Your task to perform on an android device: delete the emails in spam in the gmail app Image 0: 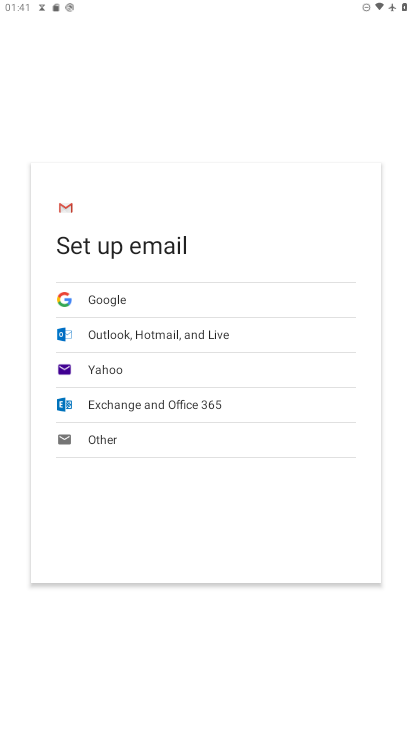
Step 0: press home button
Your task to perform on an android device: delete the emails in spam in the gmail app Image 1: 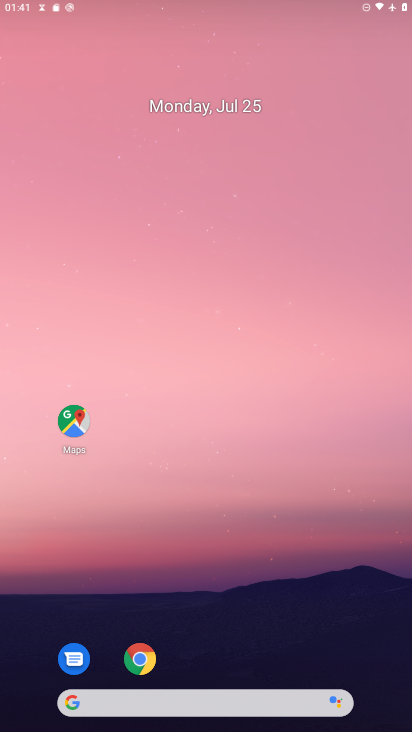
Step 1: drag from (218, 658) to (194, 322)
Your task to perform on an android device: delete the emails in spam in the gmail app Image 2: 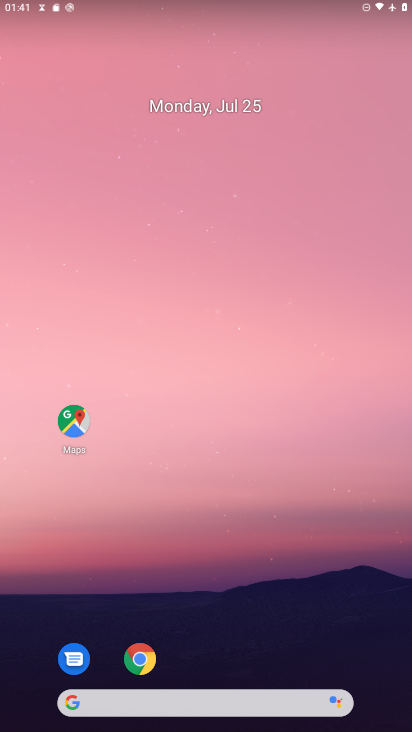
Step 2: drag from (236, 633) to (215, 199)
Your task to perform on an android device: delete the emails in spam in the gmail app Image 3: 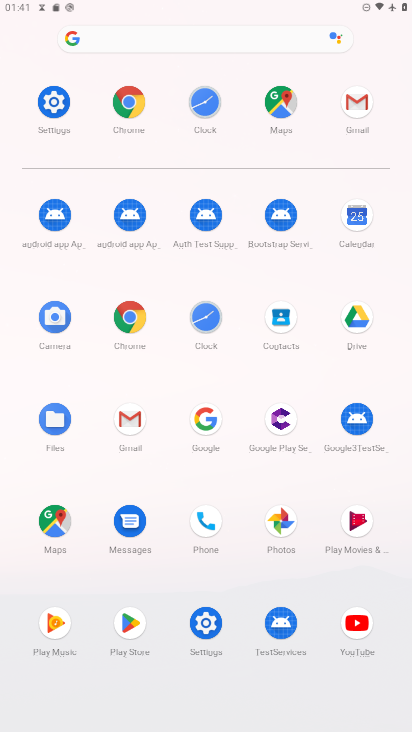
Step 3: click (347, 98)
Your task to perform on an android device: delete the emails in spam in the gmail app Image 4: 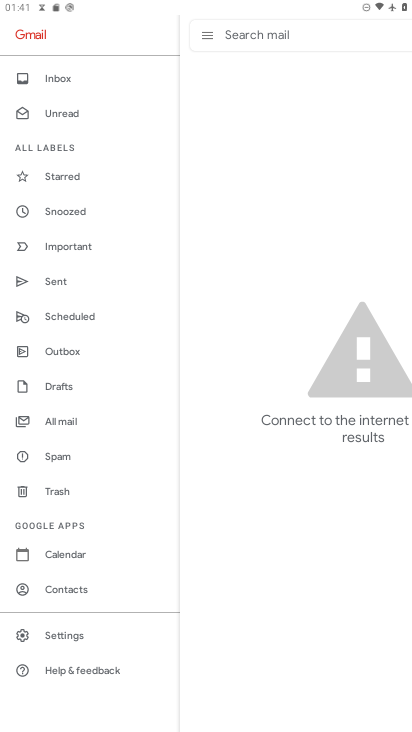
Step 4: click (67, 455)
Your task to perform on an android device: delete the emails in spam in the gmail app Image 5: 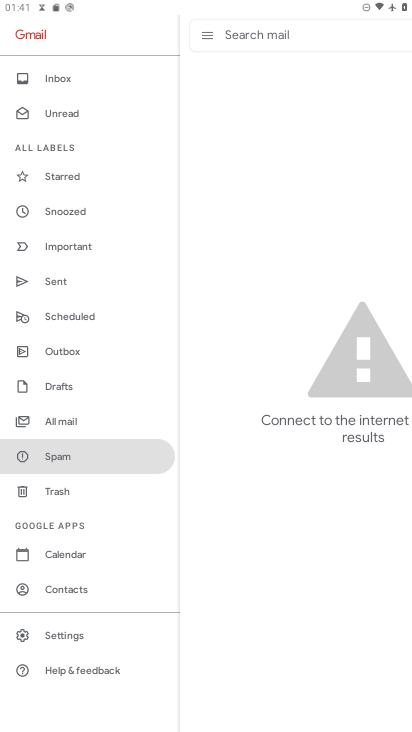
Step 5: click (67, 455)
Your task to perform on an android device: delete the emails in spam in the gmail app Image 6: 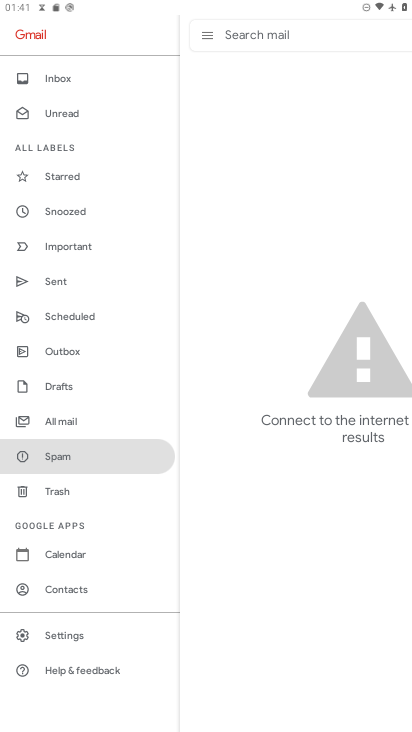
Step 6: task complete